Your task to perform on an android device: Open ESPN.com Image 0: 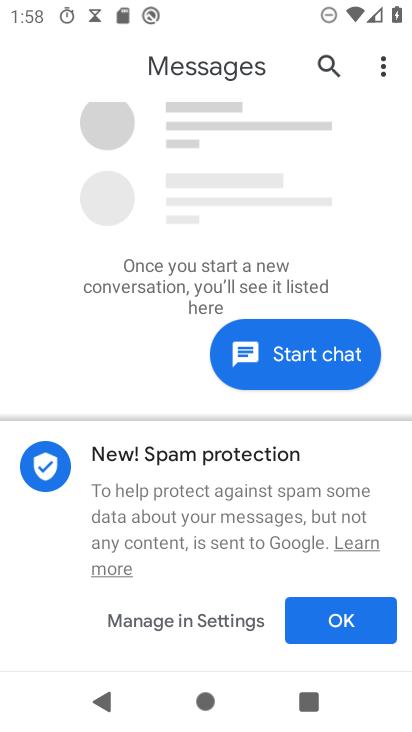
Step 0: press home button
Your task to perform on an android device: Open ESPN.com Image 1: 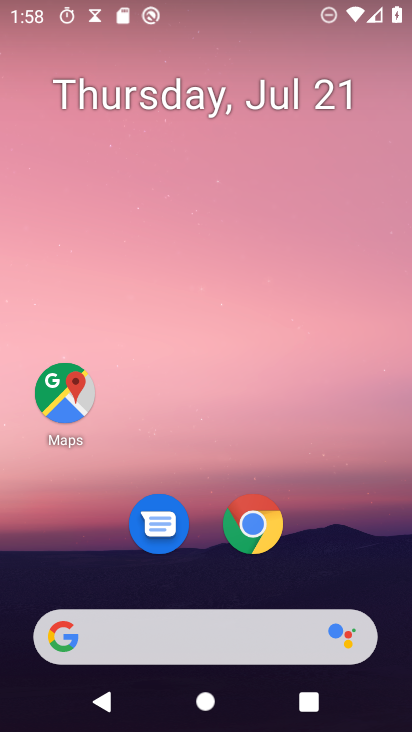
Step 1: click (261, 516)
Your task to perform on an android device: Open ESPN.com Image 2: 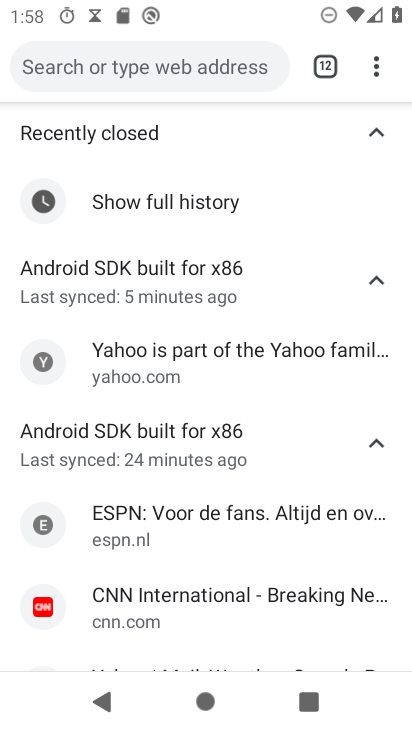
Step 2: drag from (379, 66) to (265, 131)
Your task to perform on an android device: Open ESPN.com Image 3: 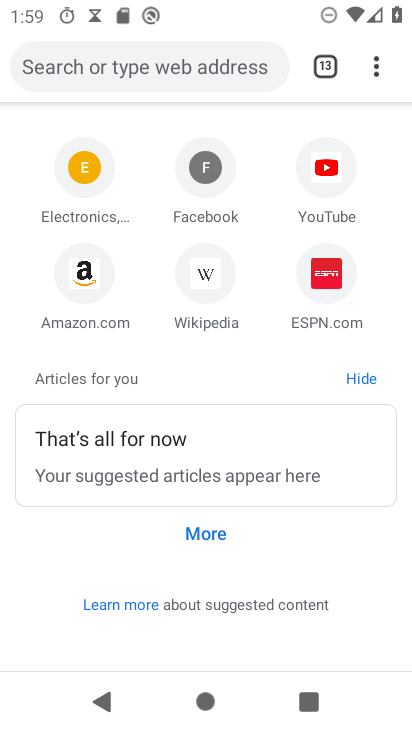
Step 3: click (330, 283)
Your task to perform on an android device: Open ESPN.com Image 4: 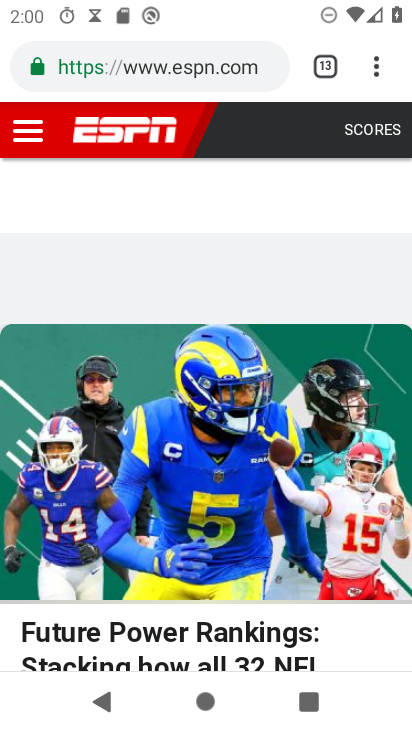
Step 4: task complete